Your task to perform on an android device: Go to Google Image 0: 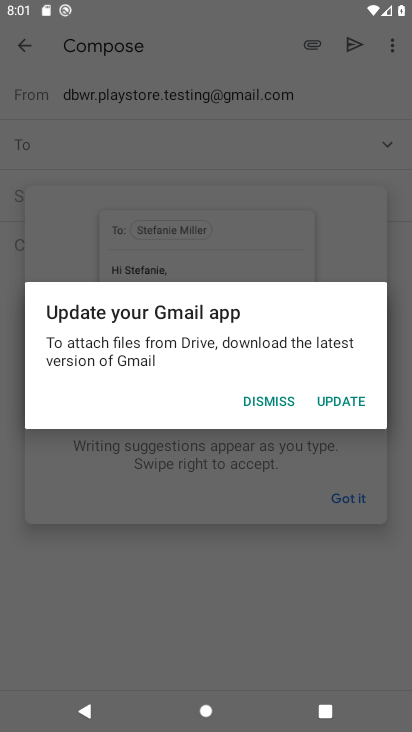
Step 0: press home button
Your task to perform on an android device: Go to Google Image 1: 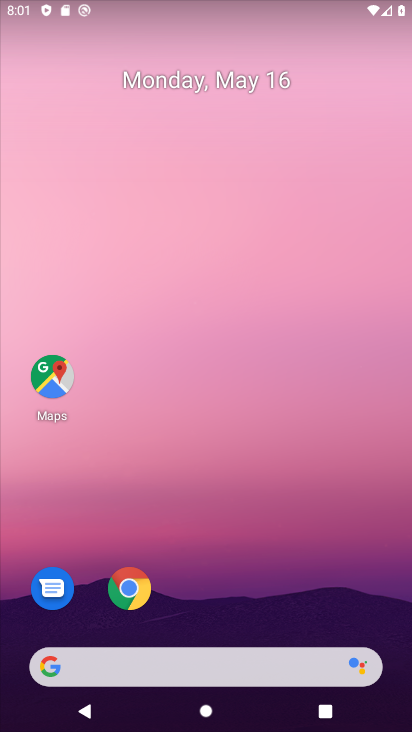
Step 1: drag from (220, 592) to (194, 9)
Your task to perform on an android device: Go to Google Image 2: 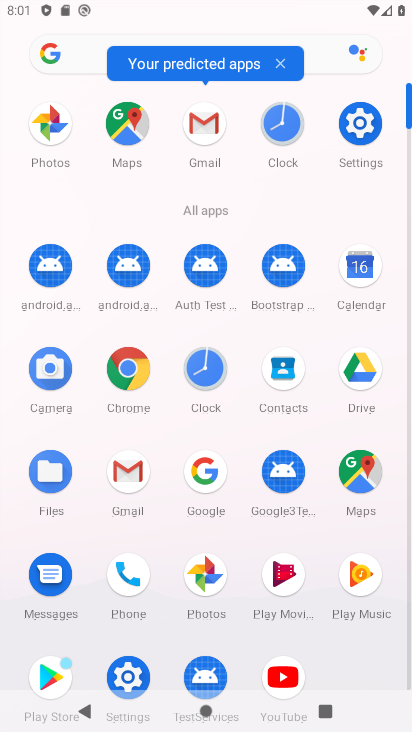
Step 2: click (208, 474)
Your task to perform on an android device: Go to Google Image 3: 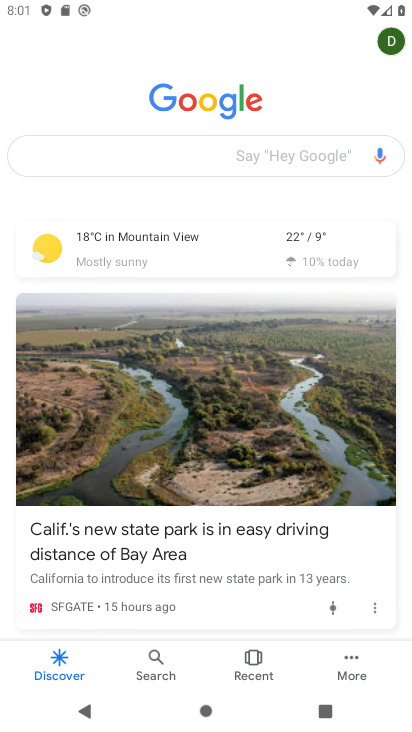
Step 3: task complete